Your task to perform on an android device: open wifi settings Image 0: 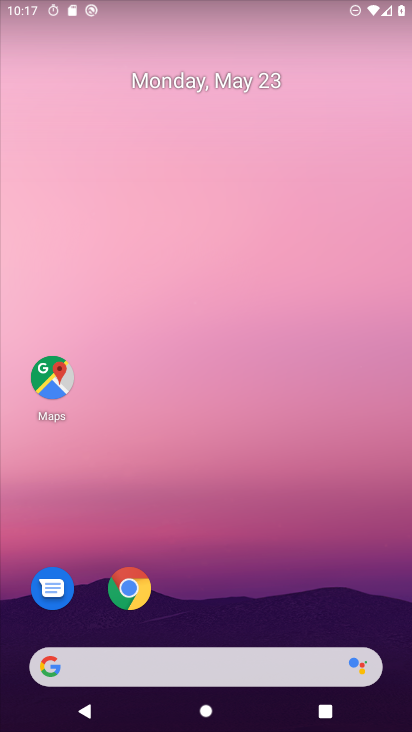
Step 0: drag from (400, 669) to (335, 279)
Your task to perform on an android device: open wifi settings Image 1: 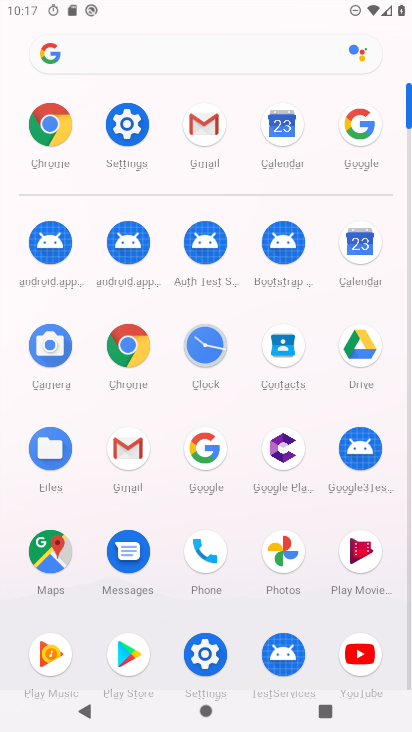
Step 1: click (129, 126)
Your task to perform on an android device: open wifi settings Image 2: 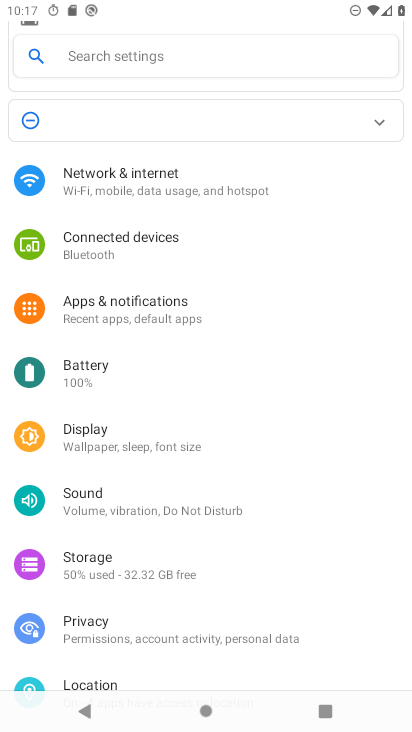
Step 2: click (112, 171)
Your task to perform on an android device: open wifi settings Image 3: 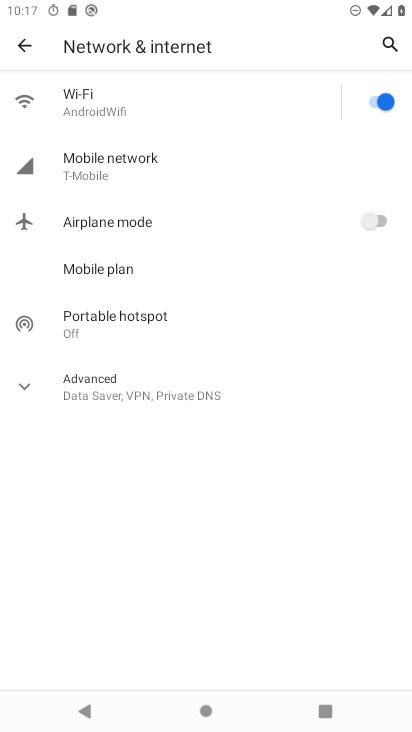
Step 3: task complete